Your task to perform on an android device: Go to Yahoo.com Image 0: 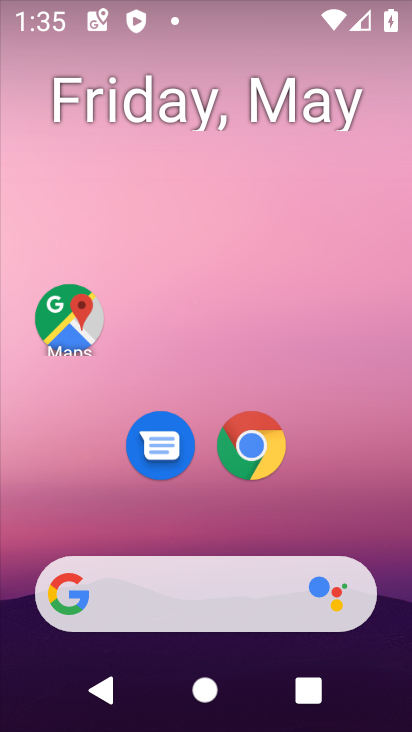
Step 0: click (249, 438)
Your task to perform on an android device: Go to Yahoo.com Image 1: 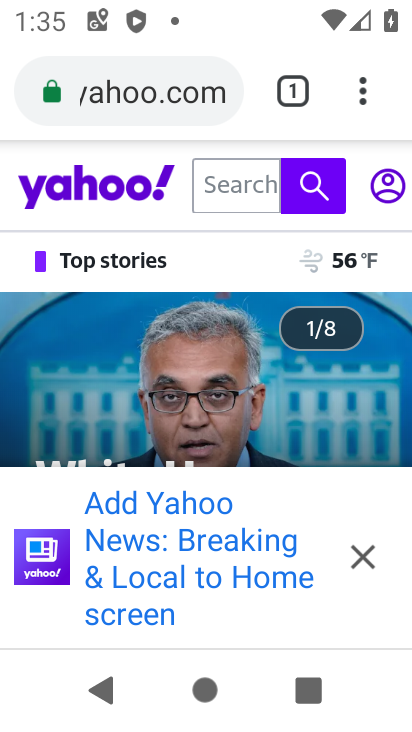
Step 1: task complete